Your task to perform on an android device: Do I have any events today? Image 0: 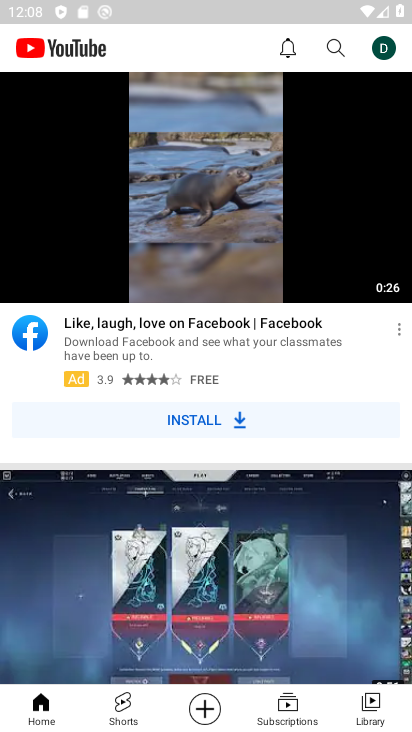
Step 0: press home button
Your task to perform on an android device: Do I have any events today? Image 1: 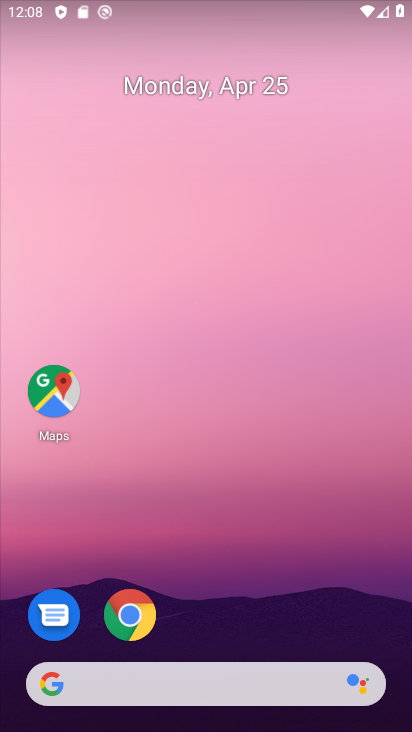
Step 1: drag from (345, 580) to (376, 131)
Your task to perform on an android device: Do I have any events today? Image 2: 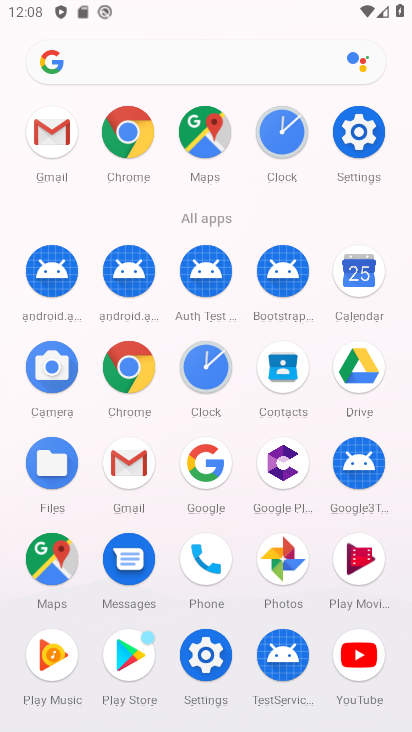
Step 2: click (346, 287)
Your task to perform on an android device: Do I have any events today? Image 3: 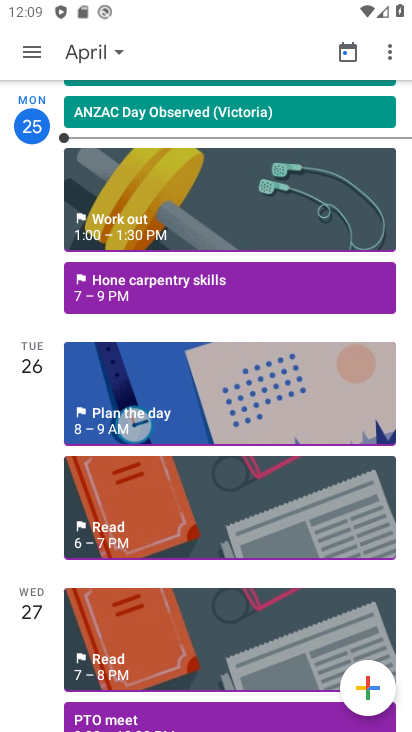
Step 3: click (290, 225)
Your task to perform on an android device: Do I have any events today? Image 4: 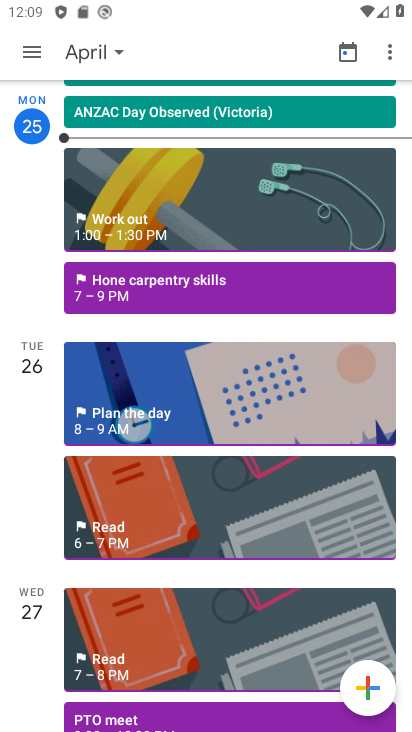
Step 4: click (290, 226)
Your task to perform on an android device: Do I have any events today? Image 5: 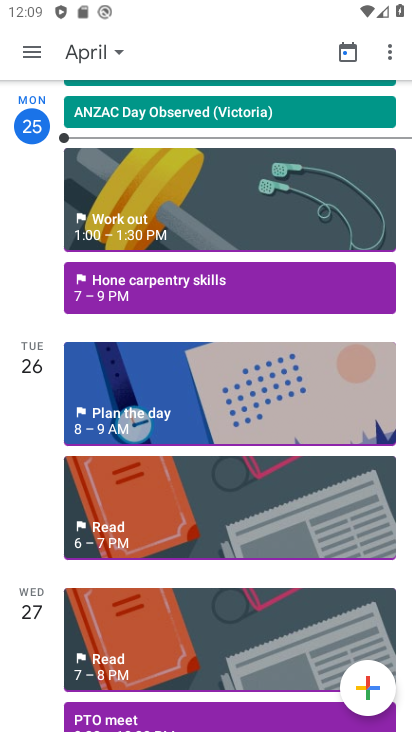
Step 5: click (288, 240)
Your task to perform on an android device: Do I have any events today? Image 6: 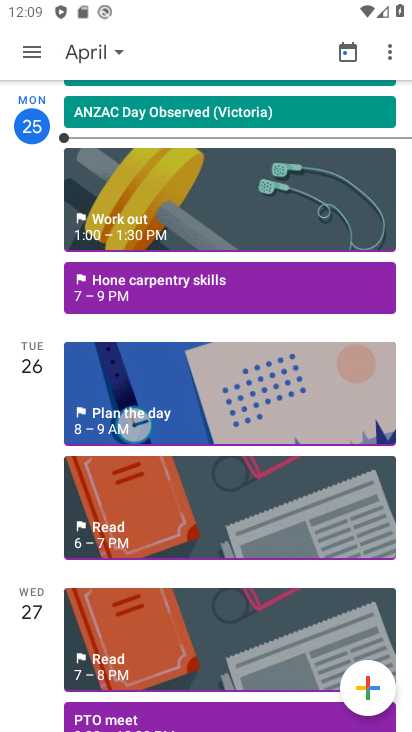
Step 6: click (309, 273)
Your task to perform on an android device: Do I have any events today? Image 7: 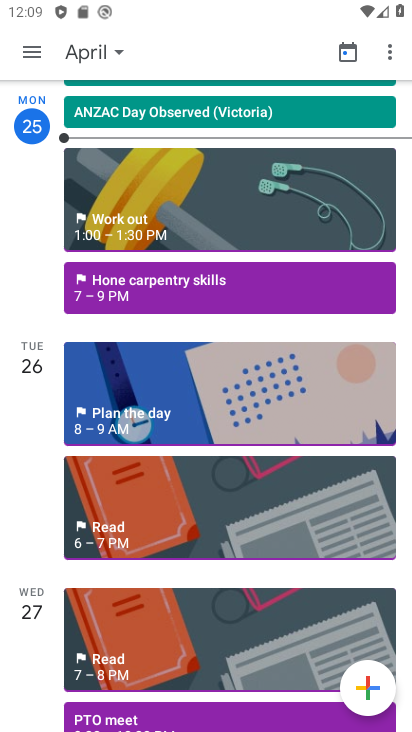
Step 7: task complete